Your task to perform on an android device: Open Youtube and go to the subscriptions tab Image 0: 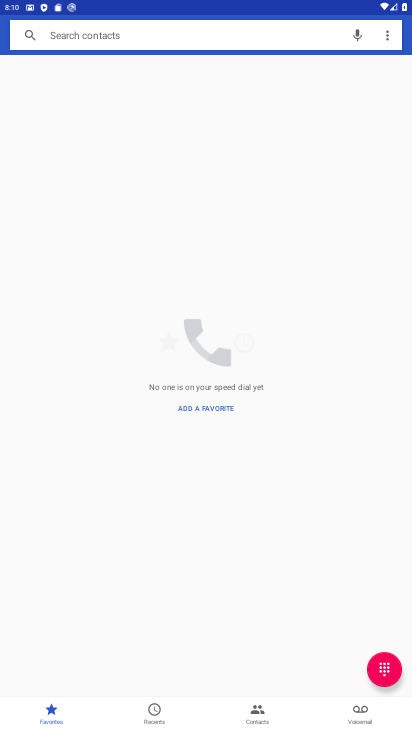
Step 0: press home button
Your task to perform on an android device: Open Youtube and go to the subscriptions tab Image 1: 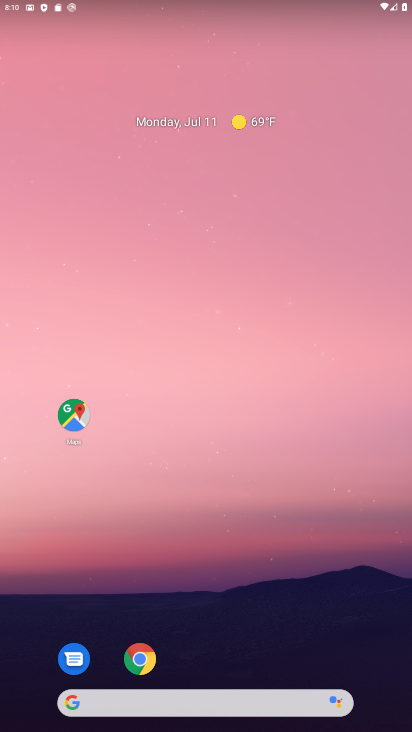
Step 1: drag from (179, 699) to (285, 145)
Your task to perform on an android device: Open Youtube and go to the subscriptions tab Image 2: 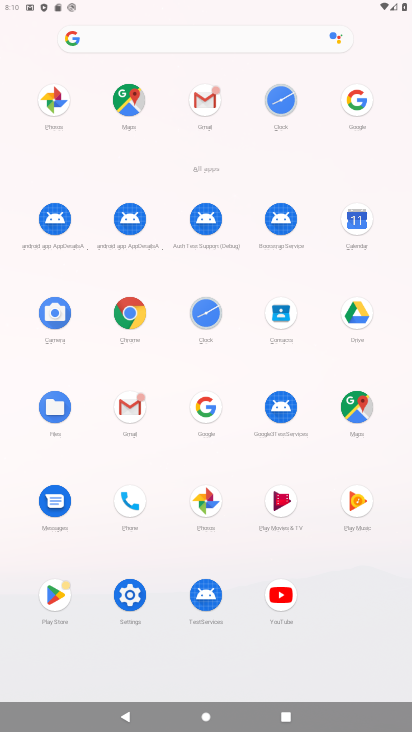
Step 2: click (271, 600)
Your task to perform on an android device: Open Youtube and go to the subscriptions tab Image 3: 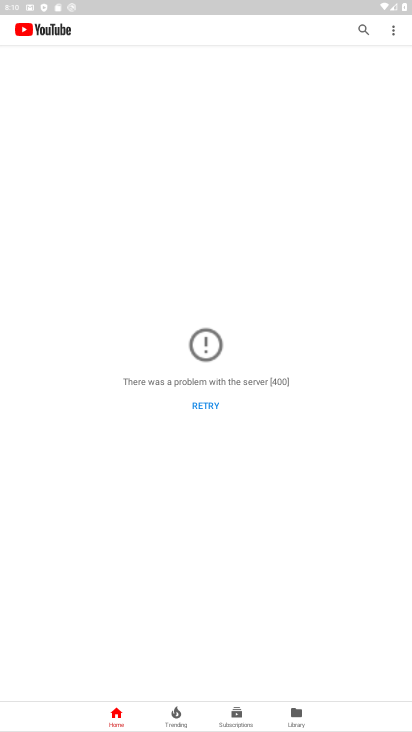
Step 3: click (230, 715)
Your task to perform on an android device: Open Youtube and go to the subscriptions tab Image 4: 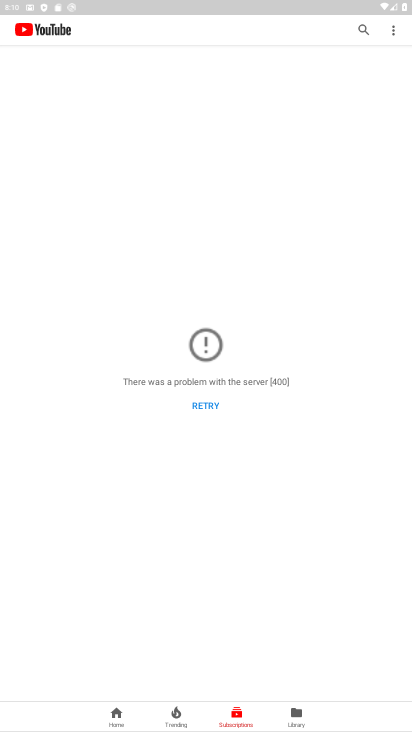
Step 4: task complete